Your task to perform on an android device: turn off notifications in google photos Image 0: 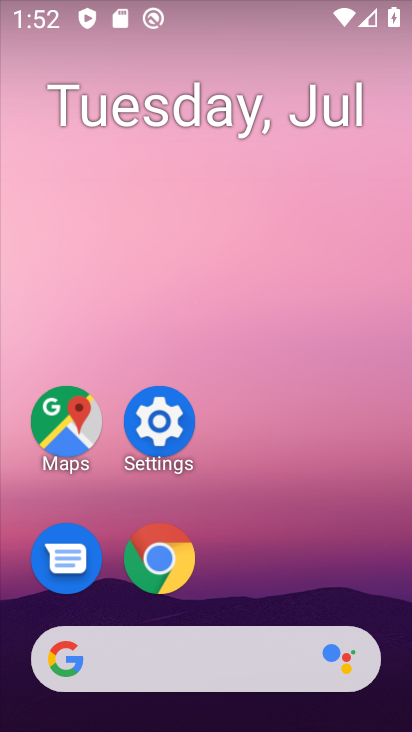
Step 0: drag from (264, 130) to (259, 74)
Your task to perform on an android device: turn off notifications in google photos Image 1: 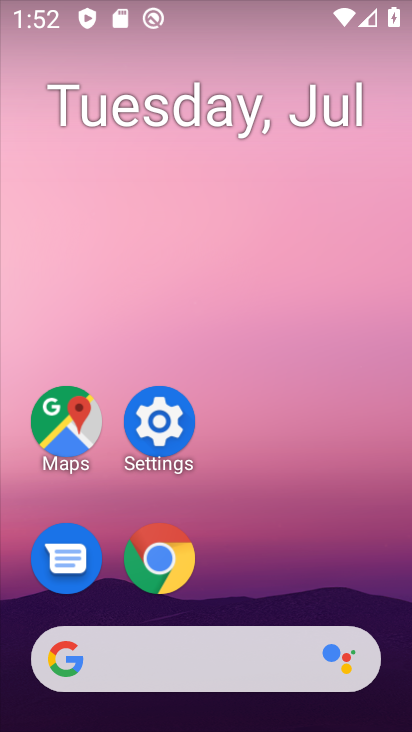
Step 1: drag from (389, 668) to (203, 3)
Your task to perform on an android device: turn off notifications in google photos Image 2: 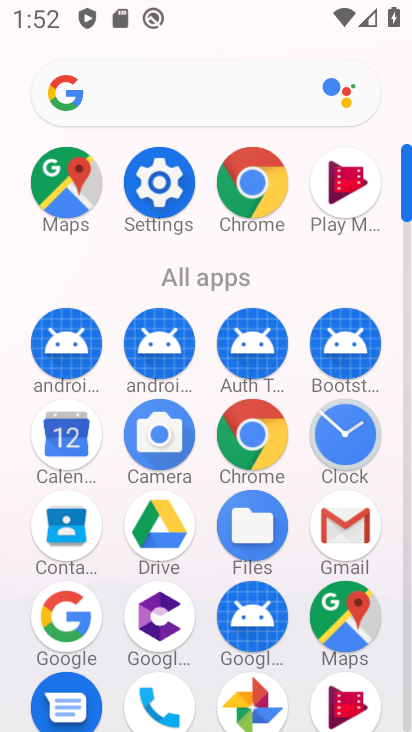
Step 2: drag from (294, 215) to (266, 22)
Your task to perform on an android device: turn off notifications in google photos Image 3: 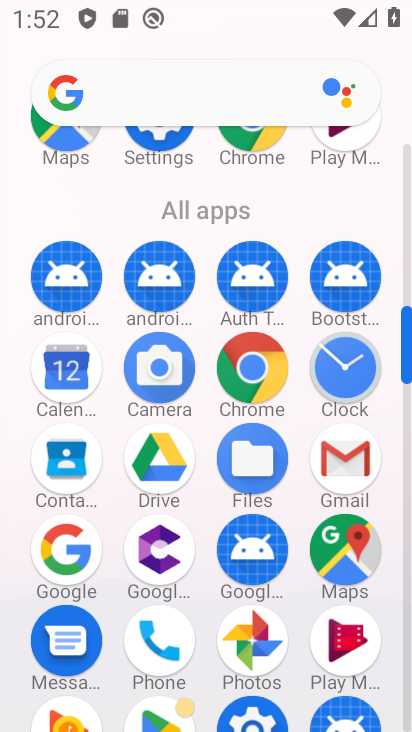
Step 3: click (268, 641)
Your task to perform on an android device: turn off notifications in google photos Image 4: 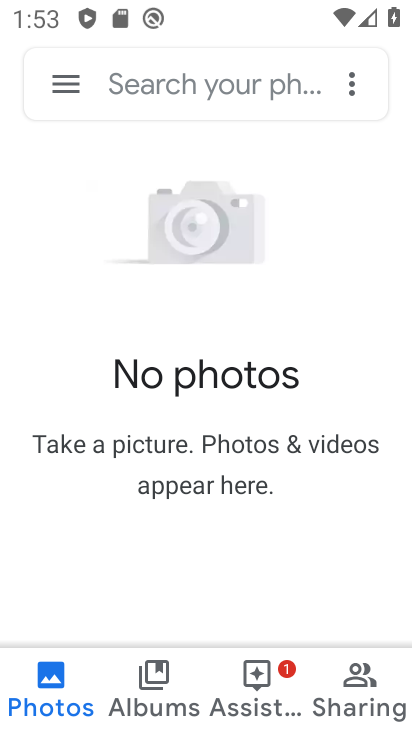
Step 4: click (62, 91)
Your task to perform on an android device: turn off notifications in google photos Image 5: 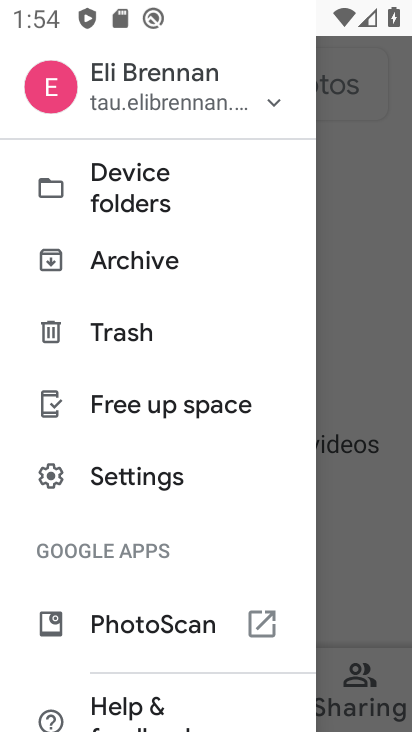
Step 5: click (130, 469)
Your task to perform on an android device: turn off notifications in google photos Image 6: 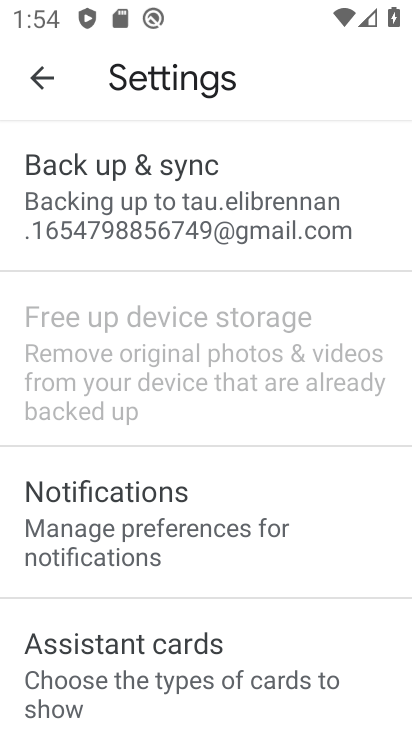
Step 6: click (79, 518)
Your task to perform on an android device: turn off notifications in google photos Image 7: 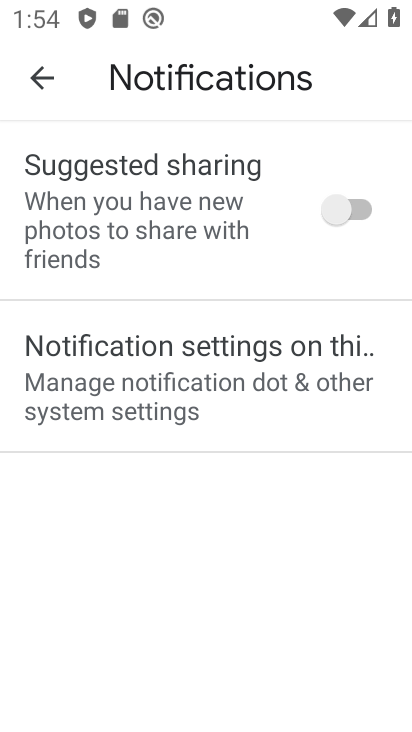
Step 7: click (203, 354)
Your task to perform on an android device: turn off notifications in google photos Image 8: 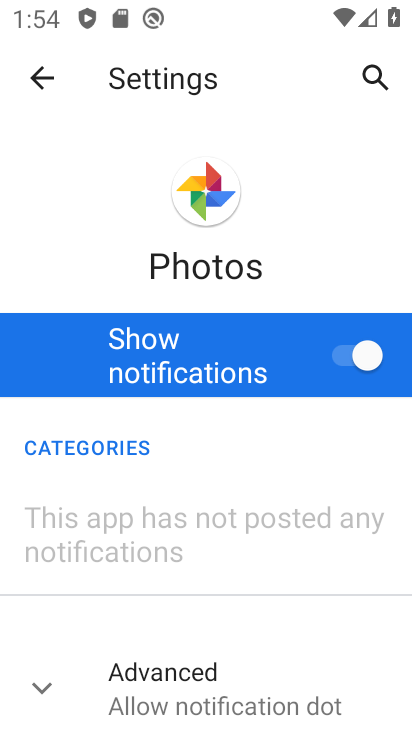
Step 8: click (337, 360)
Your task to perform on an android device: turn off notifications in google photos Image 9: 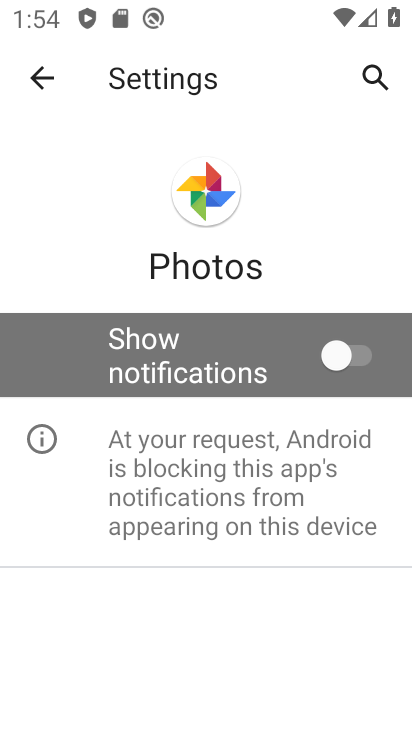
Step 9: task complete